Your task to perform on an android device: Go to Google Image 0: 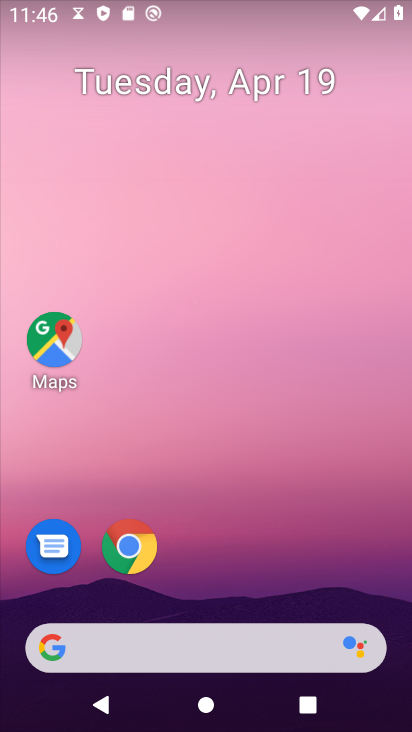
Step 0: drag from (356, 430) to (282, 47)
Your task to perform on an android device: Go to Google Image 1: 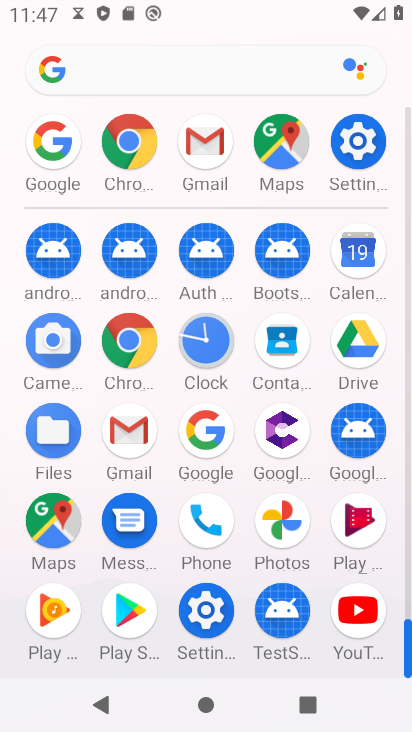
Step 1: click (127, 143)
Your task to perform on an android device: Go to Google Image 2: 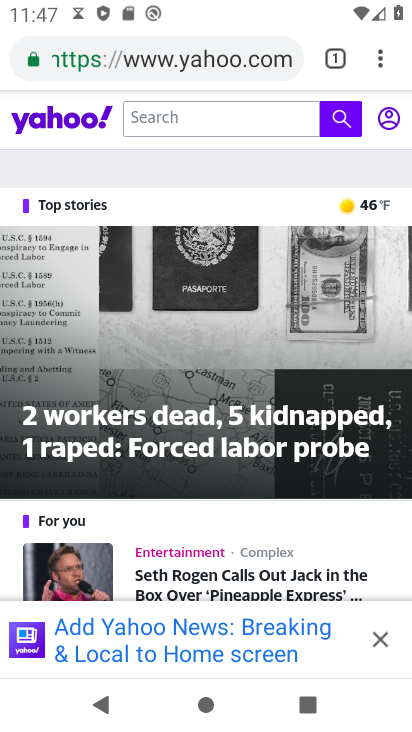
Step 2: click (186, 44)
Your task to perform on an android device: Go to Google Image 3: 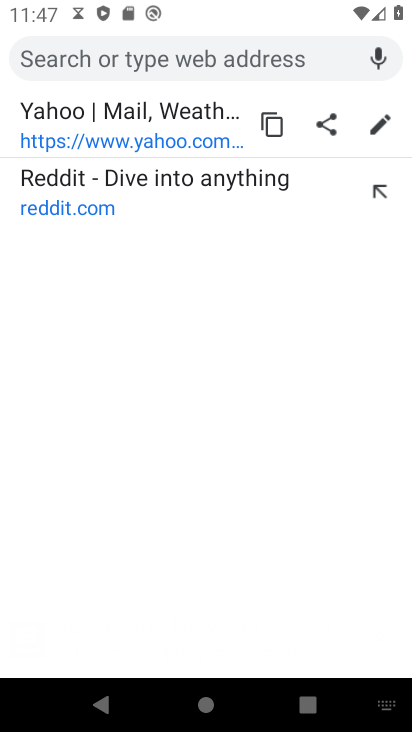
Step 3: type "Google"
Your task to perform on an android device: Go to Google Image 4: 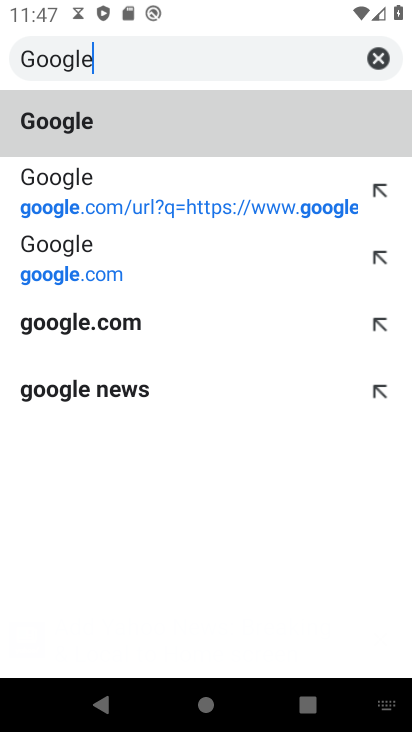
Step 4: type ""
Your task to perform on an android device: Go to Google Image 5: 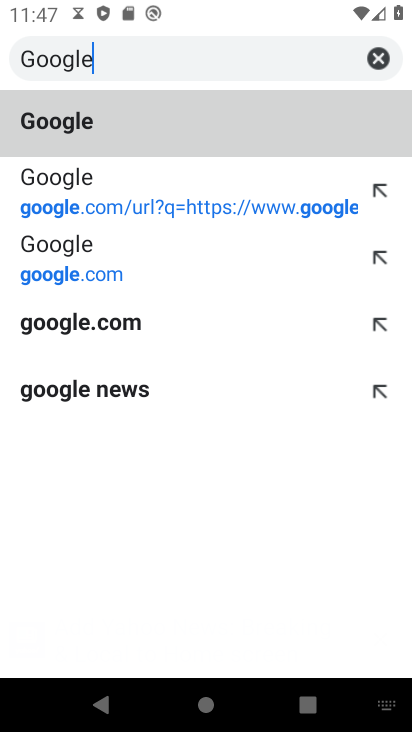
Step 5: click (119, 120)
Your task to perform on an android device: Go to Google Image 6: 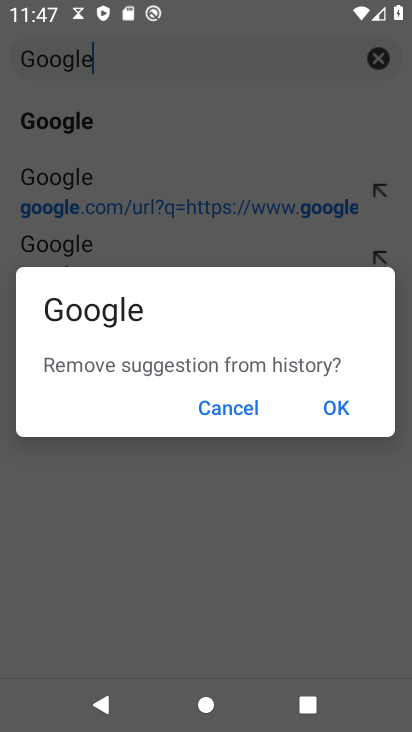
Step 6: click (234, 410)
Your task to perform on an android device: Go to Google Image 7: 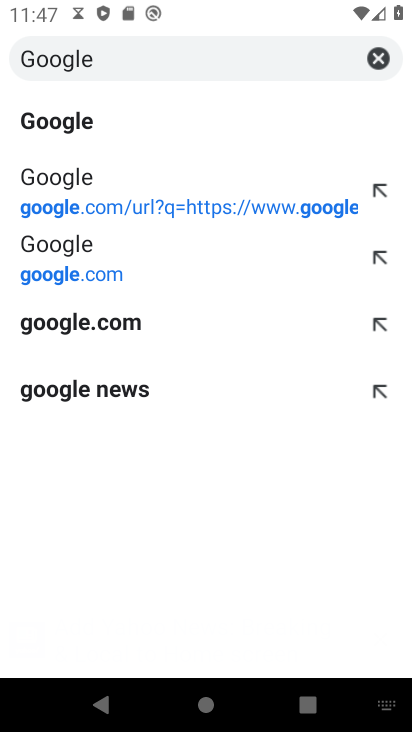
Step 7: click (125, 331)
Your task to perform on an android device: Go to Google Image 8: 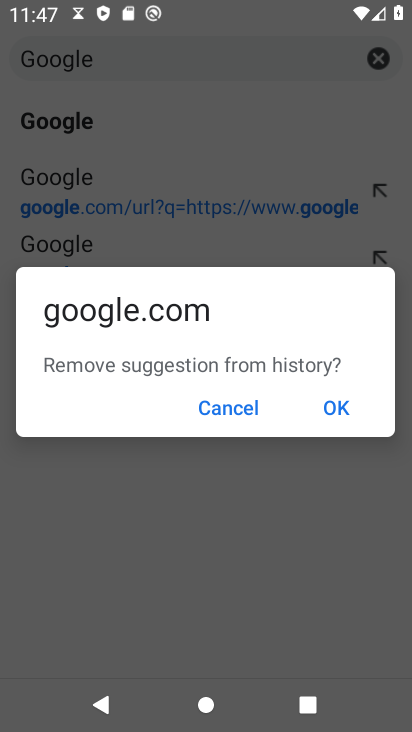
Step 8: click (344, 410)
Your task to perform on an android device: Go to Google Image 9: 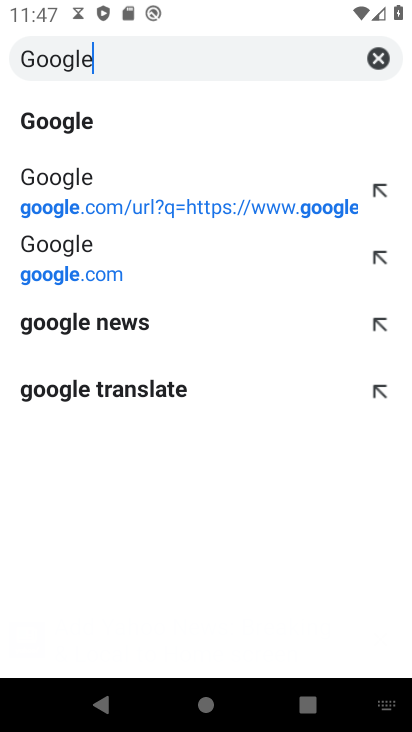
Step 9: click (72, 181)
Your task to perform on an android device: Go to Google Image 10: 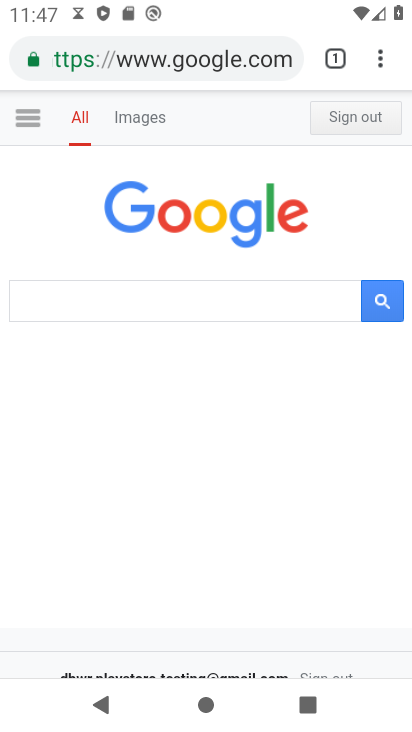
Step 10: task complete